Your task to perform on an android device: turn off data saver in the chrome app Image 0: 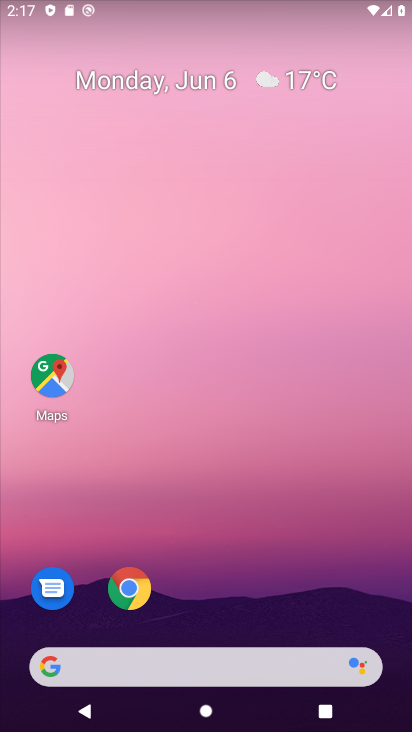
Step 0: click (134, 575)
Your task to perform on an android device: turn off data saver in the chrome app Image 1: 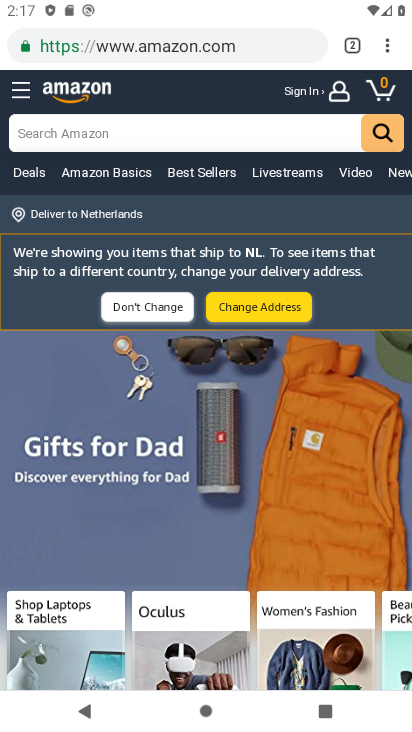
Step 1: drag from (389, 44) to (230, 548)
Your task to perform on an android device: turn off data saver in the chrome app Image 2: 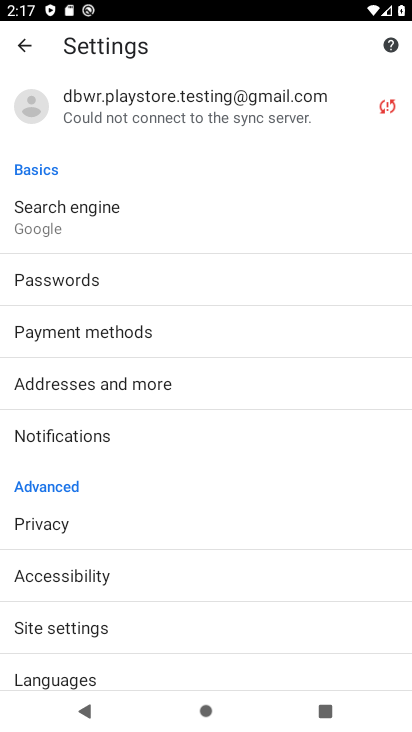
Step 2: drag from (132, 576) to (184, 37)
Your task to perform on an android device: turn off data saver in the chrome app Image 3: 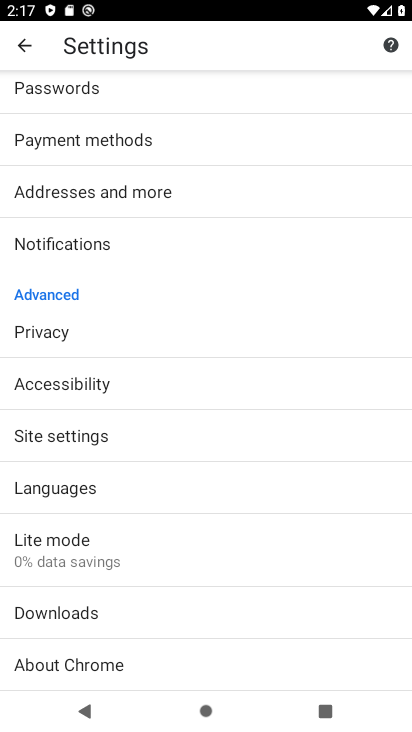
Step 3: click (85, 547)
Your task to perform on an android device: turn off data saver in the chrome app Image 4: 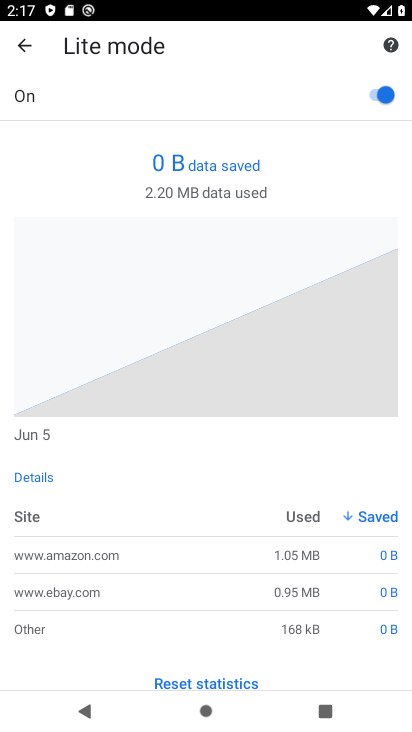
Step 4: click (371, 90)
Your task to perform on an android device: turn off data saver in the chrome app Image 5: 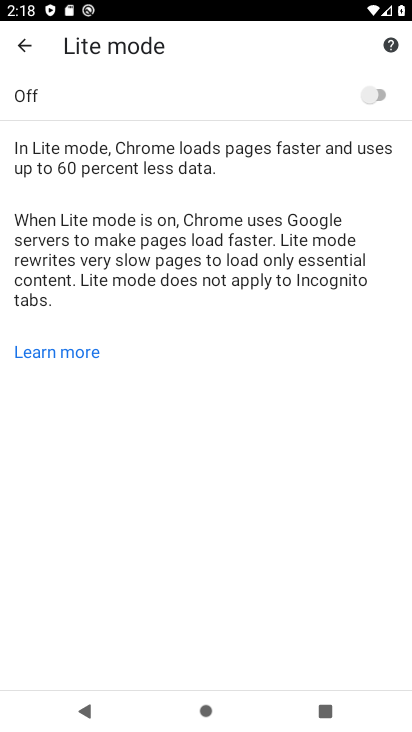
Step 5: task complete